Your task to perform on an android device: Go to Android settings Image 0: 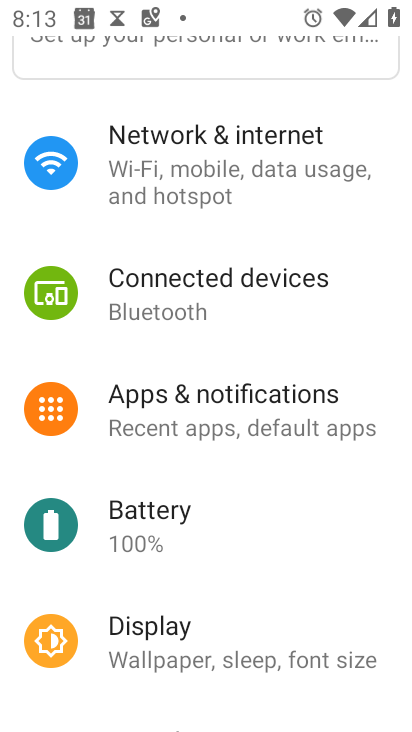
Step 0: drag from (183, 529) to (154, 225)
Your task to perform on an android device: Go to Android settings Image 1: 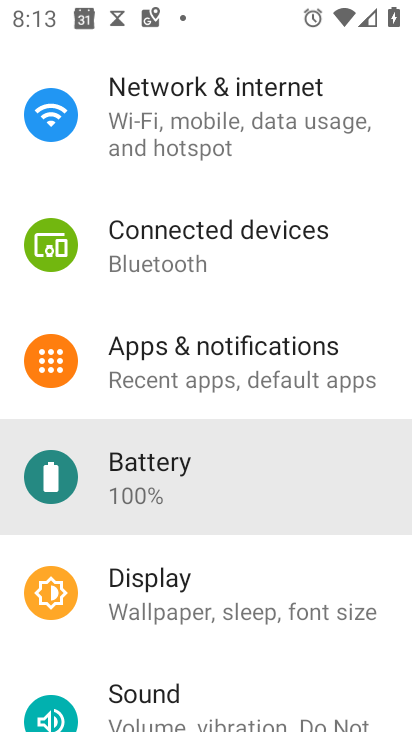
Step 1: drag from (215, 413) to (215, 129)
Your task to perform on an android device: Go to Android settings Image 2: 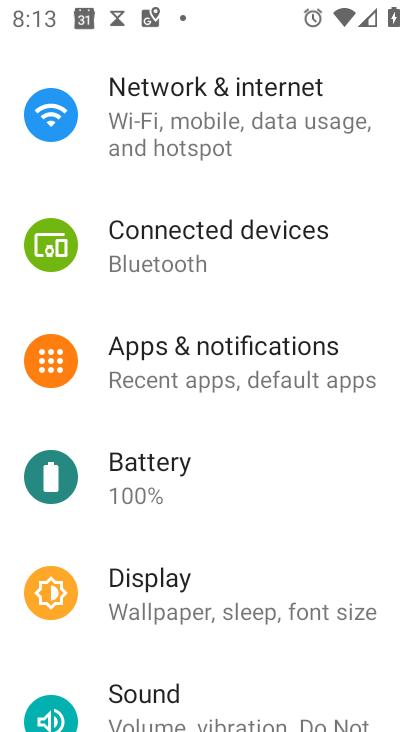
Step 2: drag from (193, 419) to (193, 288)
Your task to perform on an android device: Go to Android settings Image 3: 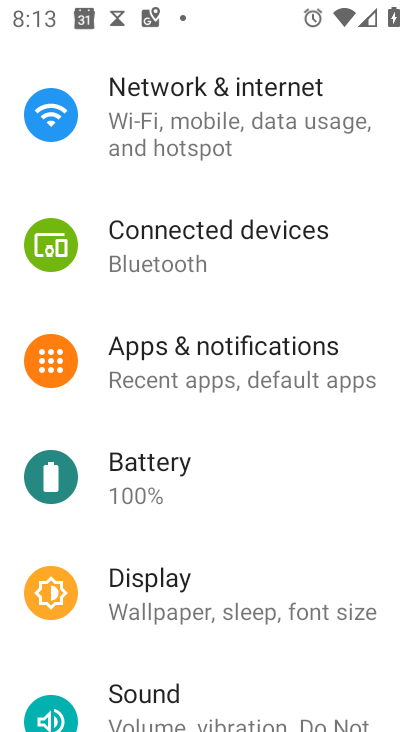
Step 3: drag from (208, 542) to (242, 231)
Your task to perform on an android device: Go to Android settings Image 4: 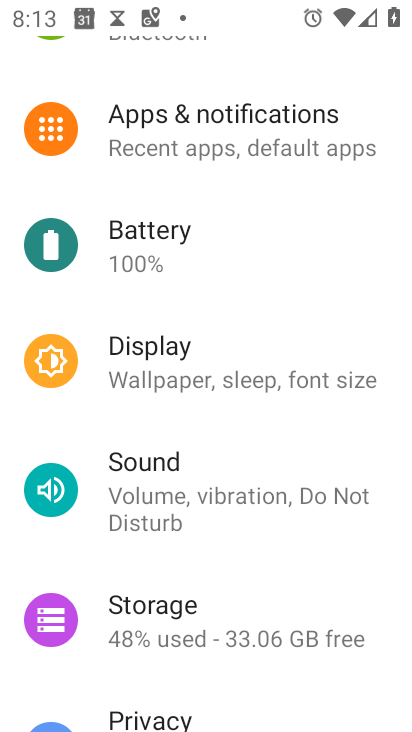
Step 4: drag from (282, 506) to (236, 168)
Your task to perform on an android device: Go to Android settings Image 5: 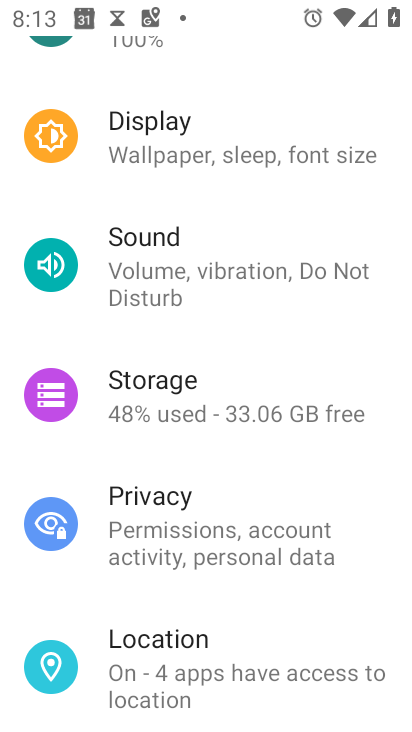
Step 5: click (185, 245)
Your task to perform on an android device: Go to Android settings Image 6: 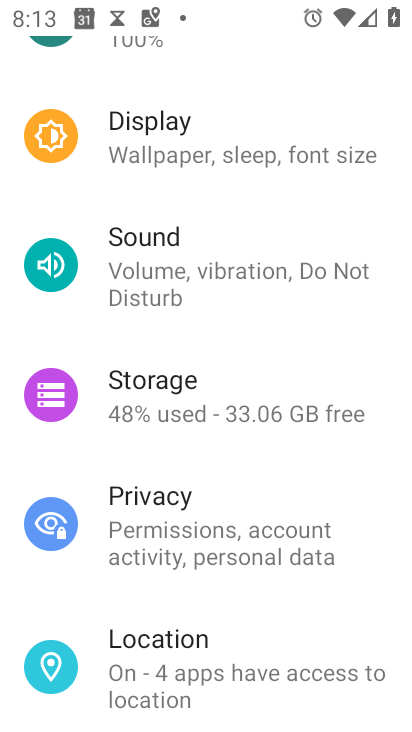
Step 6: drag from (189, 499) to (211, 200)
Your task to perform on an android device: Go to Android settings Image 7: 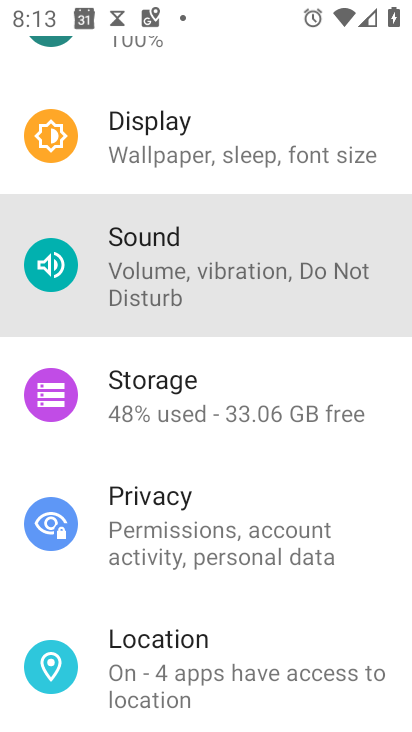
Step 7: drag from (186, 362) to (186, 216)
Your task to perform on an android device: Go to Android settings Image 8: 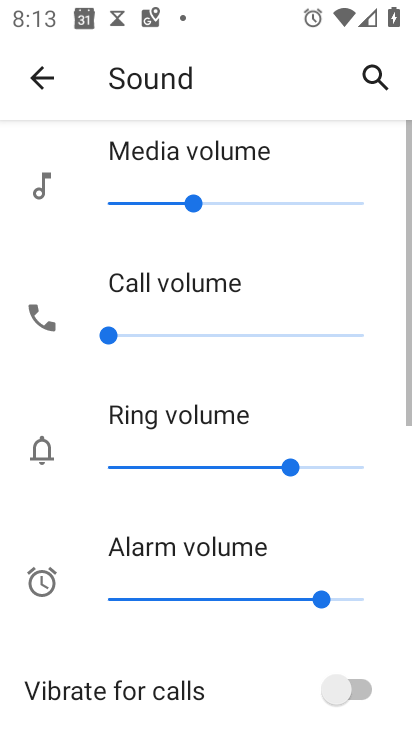
Step 8: drag from (181, 502) to (217, 230)
Your task to perform on an android device: Go to Android settings Image 9: 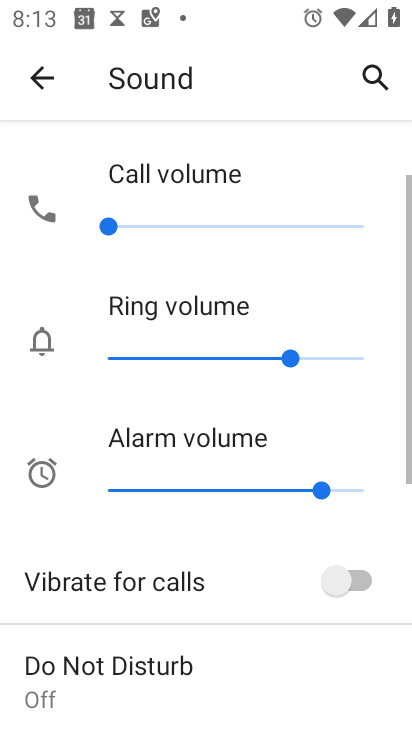
Step 9: click (215, 285)
Your task to perform on an android device: Go to Android settings Image 10: 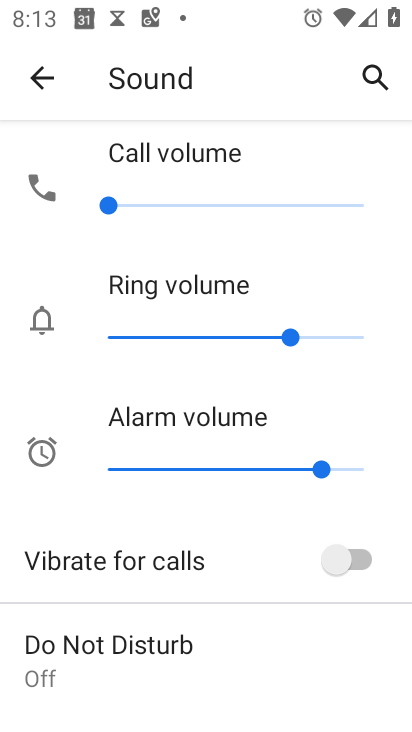
Step 10: click (43, 73)
Your task to perform on an android device: Go to Android settings Image 11: 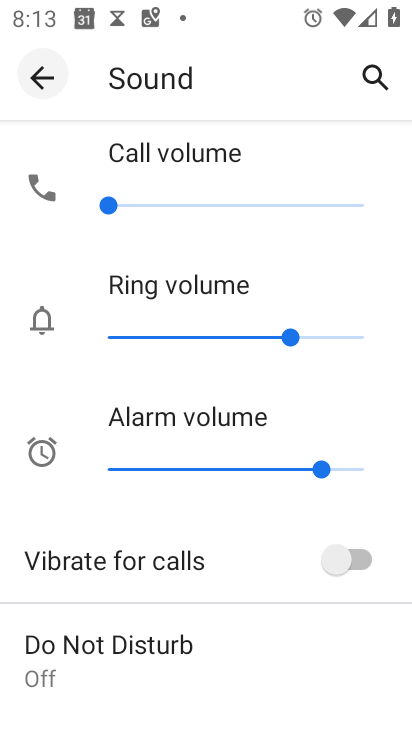
Step 11: click (43, 73)
Your task to perform on an android device: Go to Android settings Image 12: 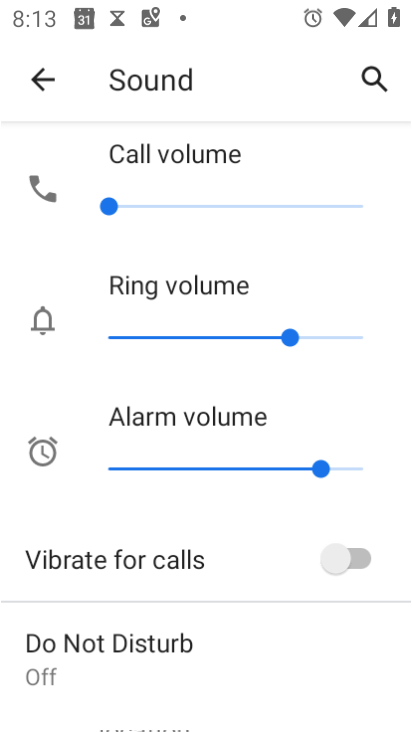
Step 12: click (43, 73)
Your task to perform on an android device: Go to Android settings Image 13: 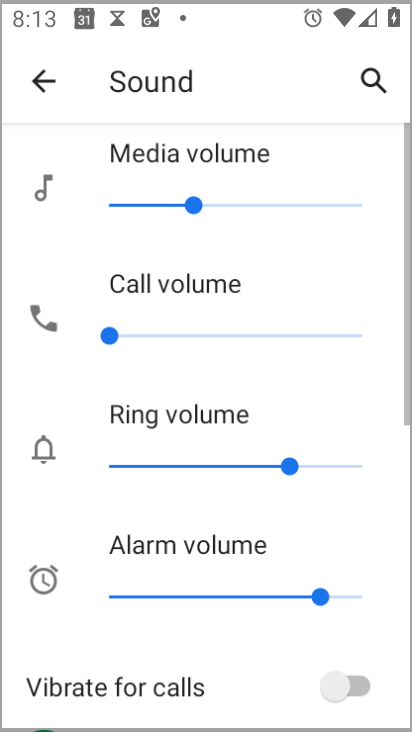
Step 13: drag from (169, 654) to (169, 216)
Your task to perform on an android device: Go to Android settings Image 14: 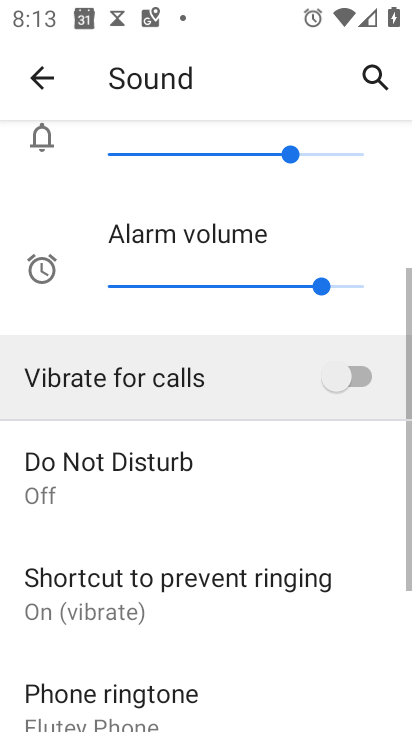
Step 14: drag from (198, 483) to (224, 178)
Your task to perform on an android device: Go to Android settings Image 15: 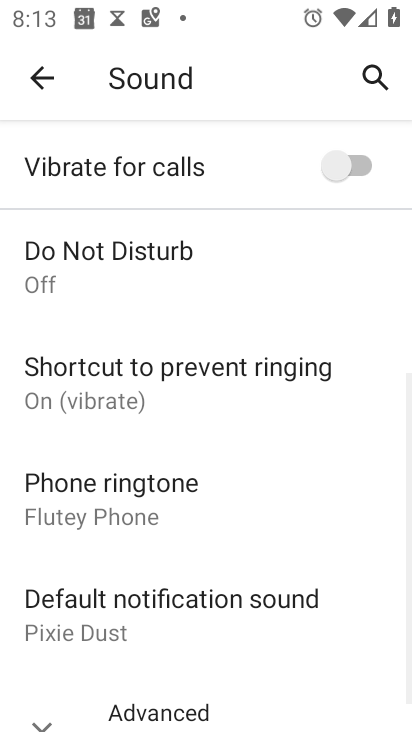
Step 15: click (48, 78)
Your task to perform on an android device: Go to Android settings Image 16: 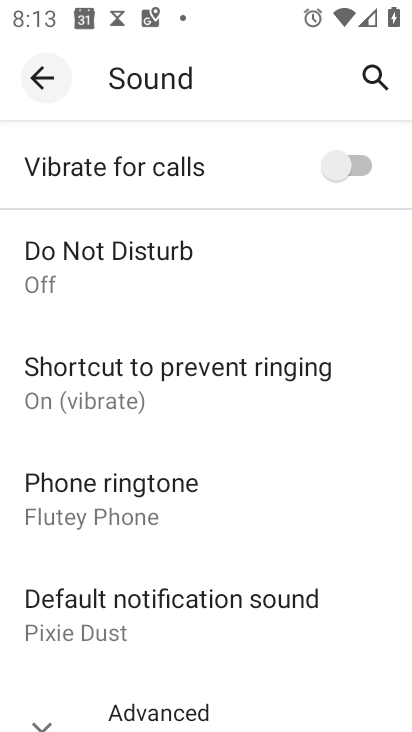
Step 16: click (48, 78)
Your task to perform on an android device: Go to Android settings Image 17: 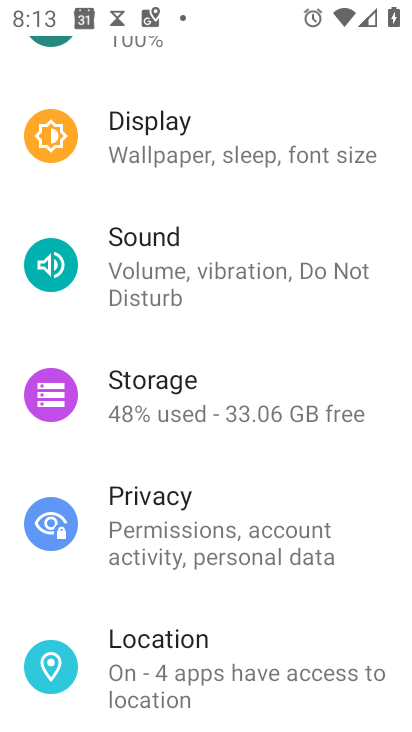
Step 17: drag from (196, 636) to (128, 226)
Your task to perform on an android device: Go to Android settings Image 18: 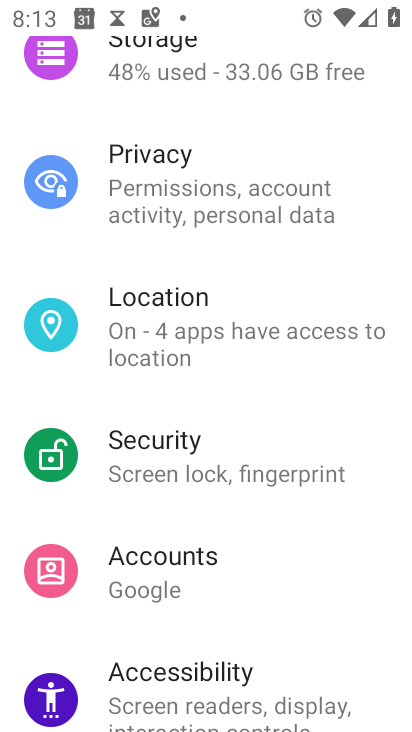
Step 18: drag from (243, 537) to (256, 326)
Your task to perform on an android device: Go to Android settings Image 19: 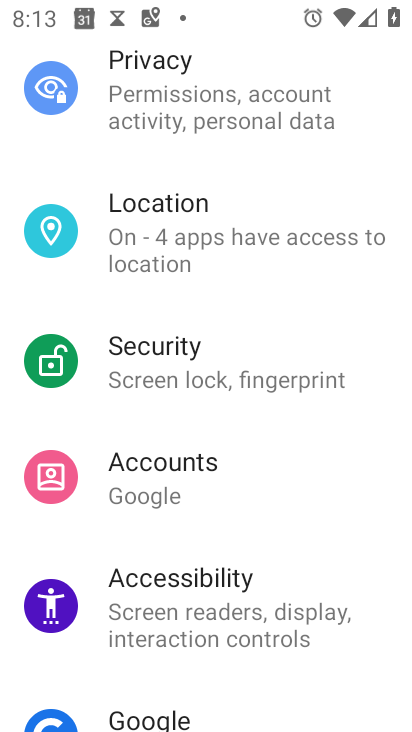
Step 19: drag from (283, 572) to (251, 261)
Your task to perform on an android device: Go to Android settings Image 20: 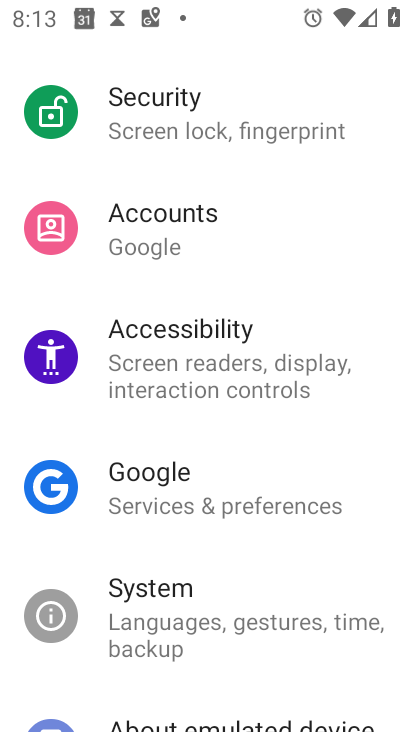
Step 20: drag from (169, 625) to (112, 222)
Your task to perform on an android device: Go to Android settings Image 21: 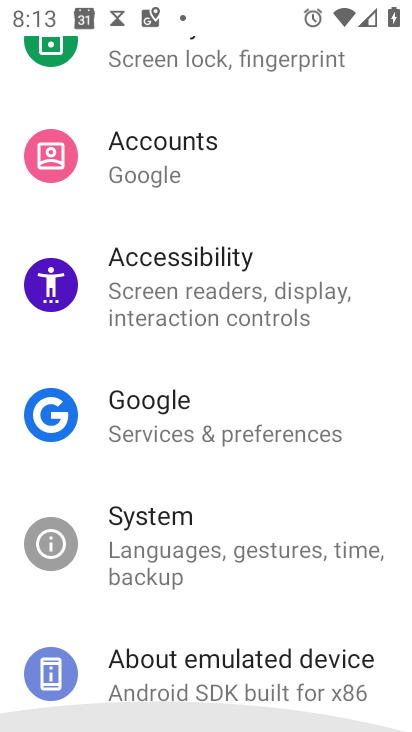
Step 21: drag from (170, 481) to (183, 206)
Your task to perform on an android device: Go to Android settings Image 22: 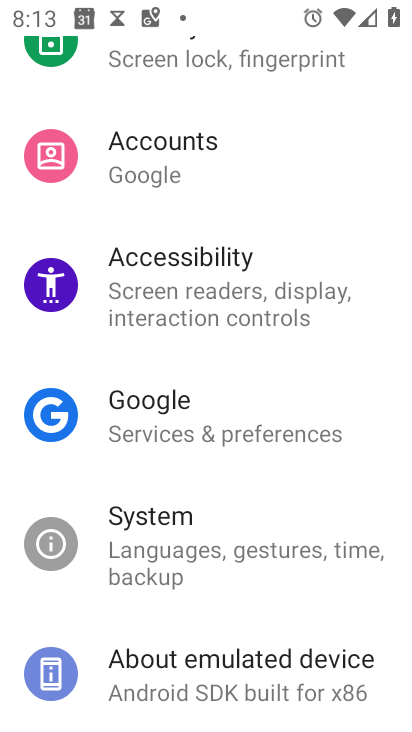
Step 22: drag from (246, 469) to (243, 220)
Your task to perform on an android device: Go to Android settings Image 23: 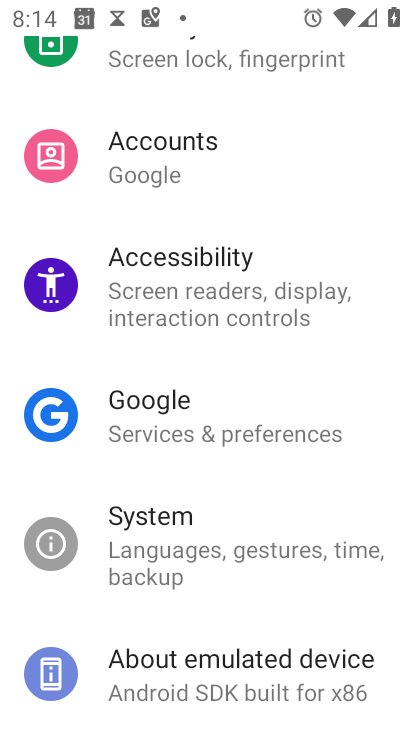
Step 23: click (191, 683)
Your task to perform on an android device: Go to Android settings Image 24: 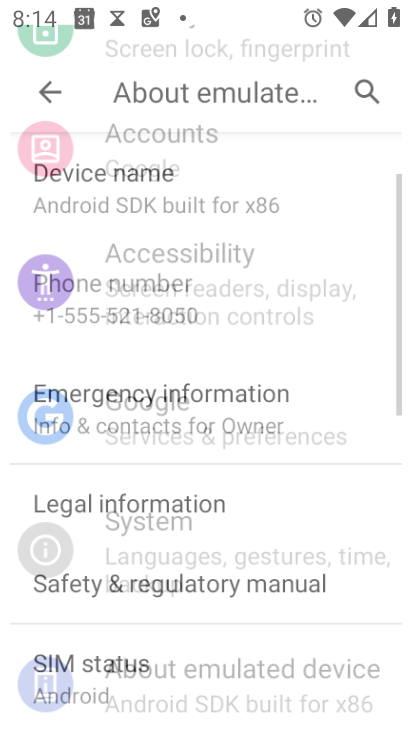
Step 24: click (191, 683)
Your task to perform on an android device: Go to Android settings Image 25: 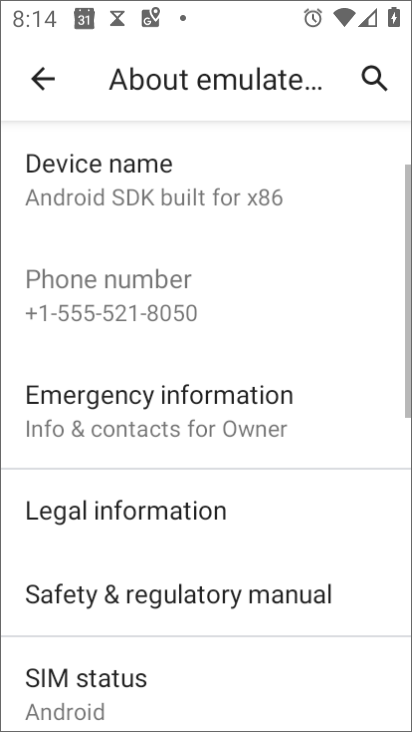
Step 25: click (190, 684)
Your task to perform on an android device: Go to Android settings Image 26: 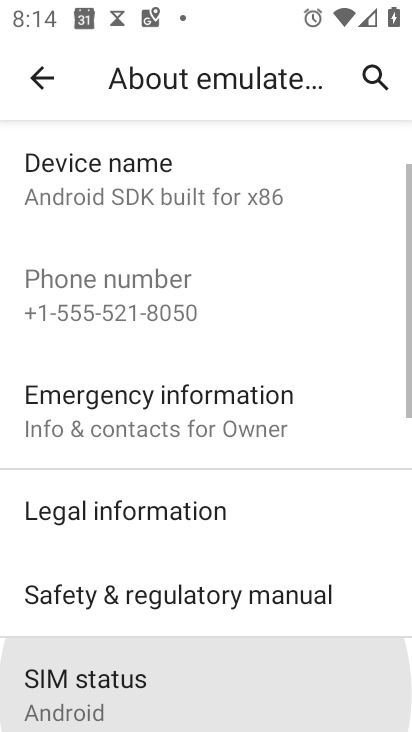
Step 26: click (190, 685)
Your task to perform on an android device: Go to Android settings Image 27: 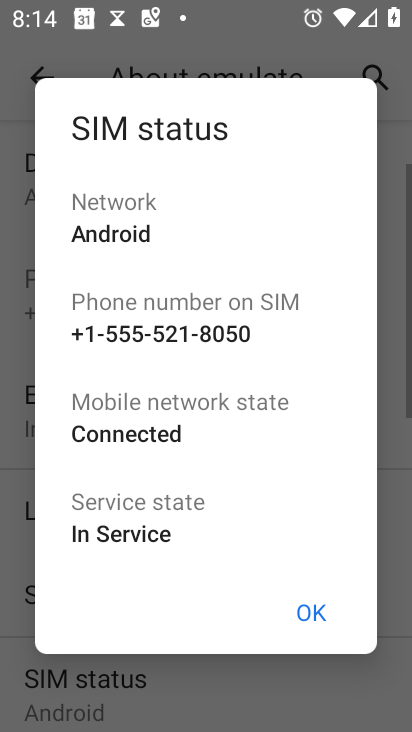
Step 27: click (315, 601)
Your task to perform on an android device: Go to Android settings Image 28: 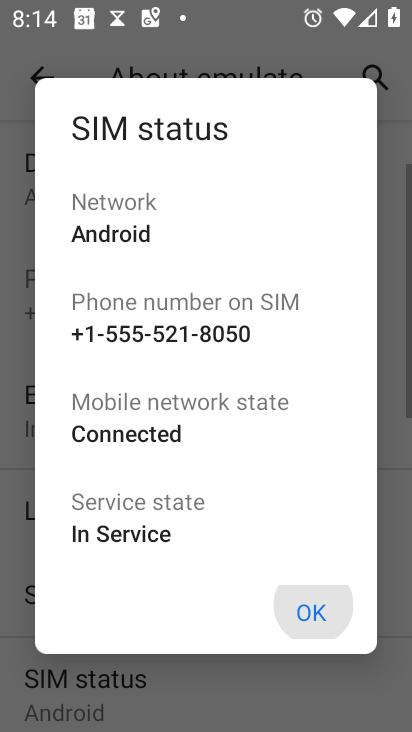
Step 28: click (315, 601)
Your task to perform on an android device: Go to Android settings Image 29: 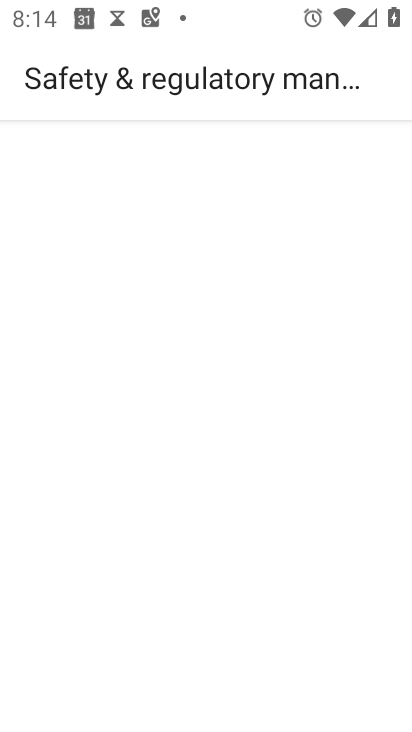
Step 29: task complete